Your task to perform on an android device: check google app version Image 0: 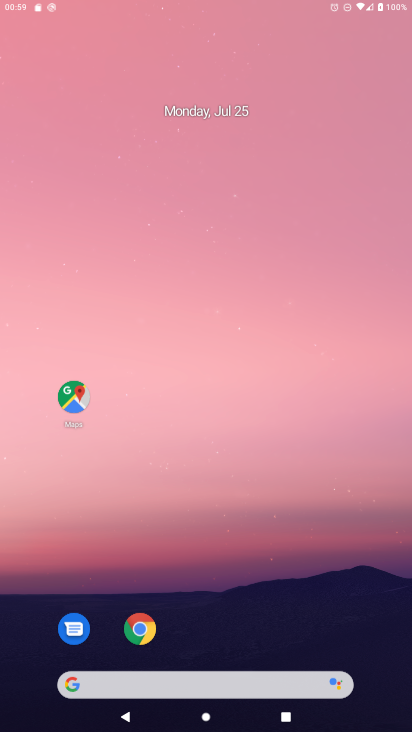
Step 0: click (329, 68)
Your task to perform on an android device: check google app version Image 1: 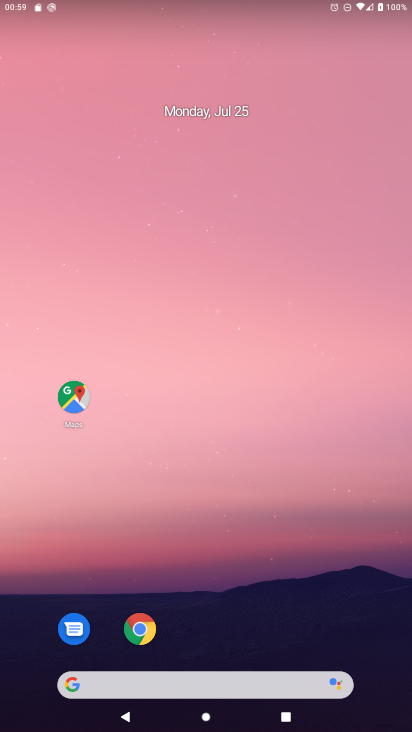
Step 1: drag from (312, 90) to (318, 52)
Your task to perform on an android device: check google app version Image 2: 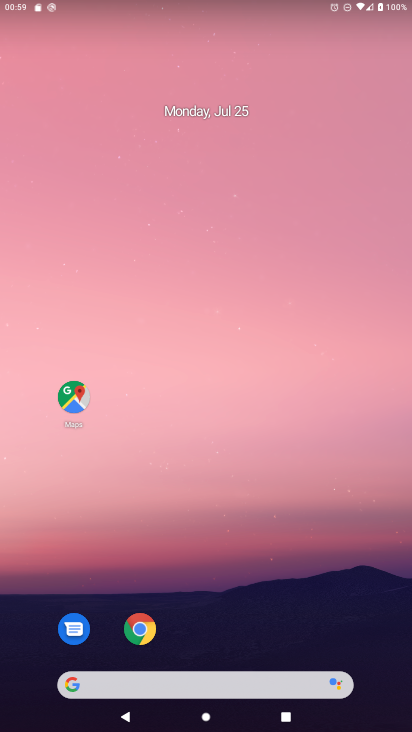
Step 2: drag from (239, 0) to (276, 18)
Your task to perform on an android device: check google app version Image 3: 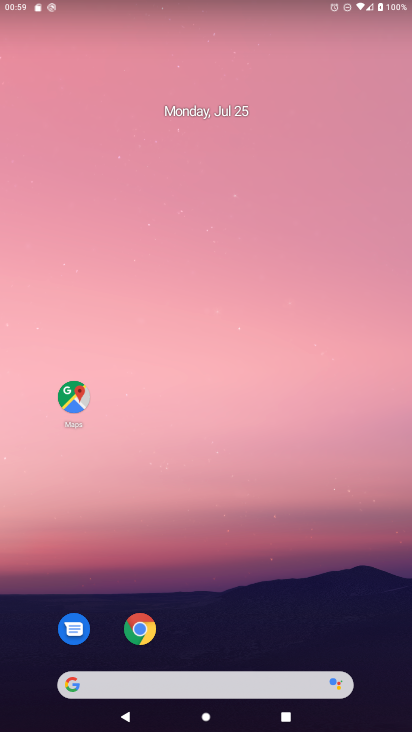
Step 3: drag from (201, 620) to (221, 99)
Your task to perform on an android device: check google app version Image 4: 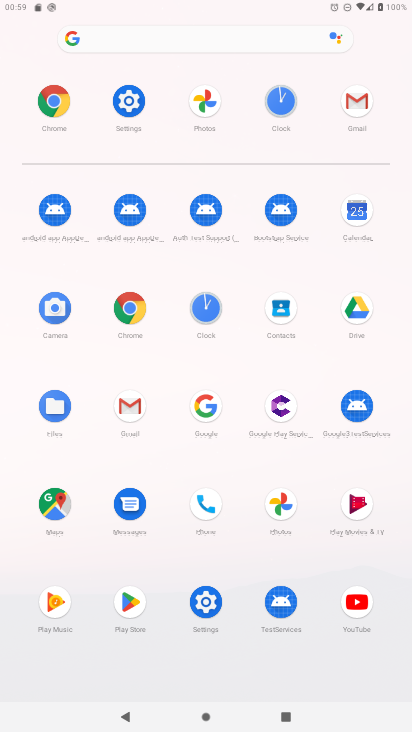
Step 4: click (199, 419)
Your task to perform on an android device: check google app version Image 5: 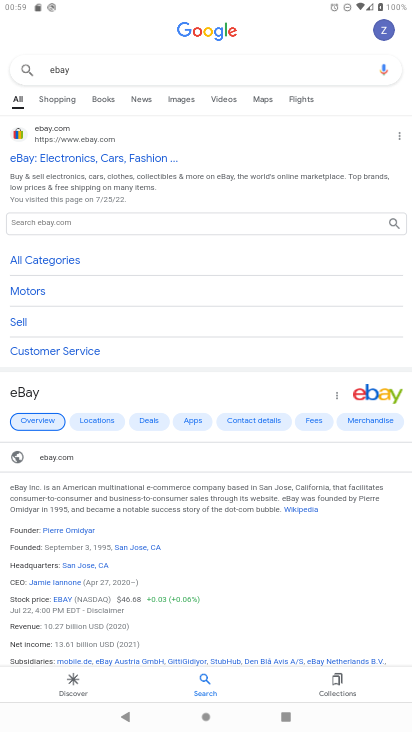
Step 5: click (386, 28)
Your task to perform on an android device: check google app version Image 6: 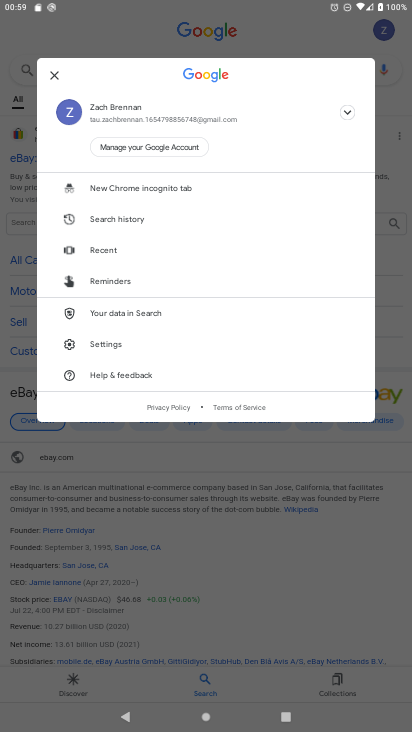
Step 6: click (96, 343)
Your task to perform on an android device: check google app version Image 7: 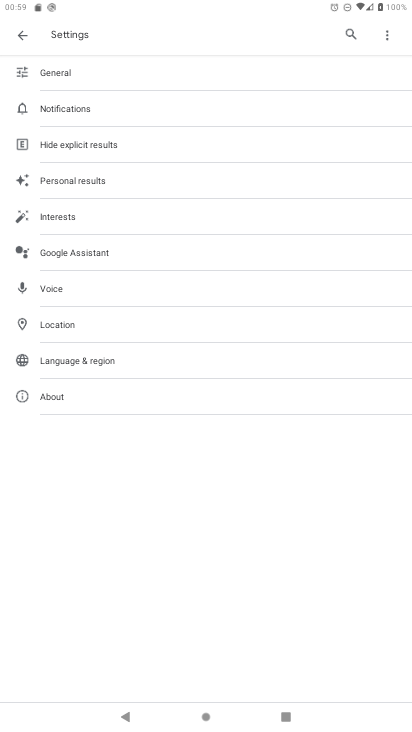
Step 7: click (60, 391)
Your task to perform on an android device: check google app version Image 8: 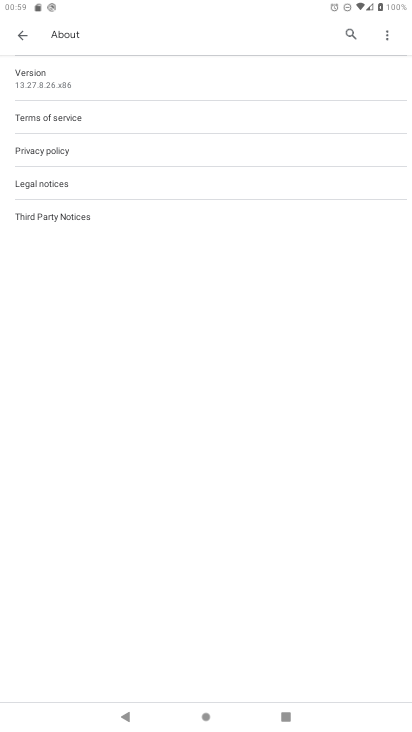
Step 8: click (78, 70)
Your task to perform on an android device: check google app version Image 9: 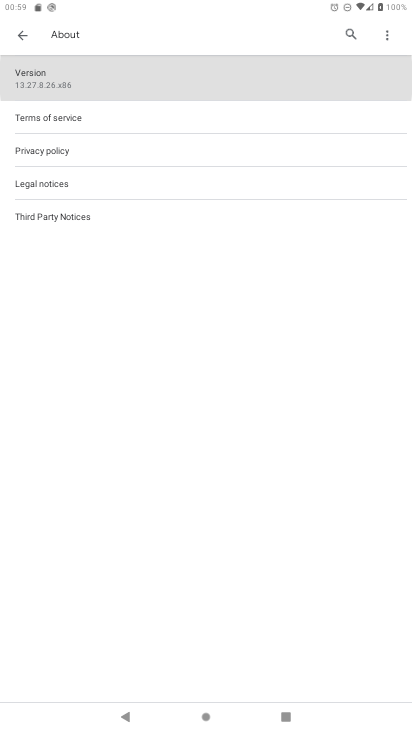
Step 9: click (266, 203)
Your task to perform on an android device: check google app version Image 10: 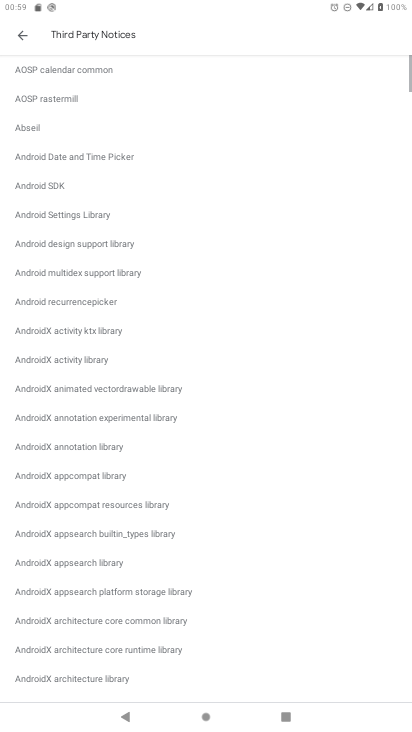
Step 10: task complete